Your task to perform on an android device: manage bookmarks in the chrome app Image 0: 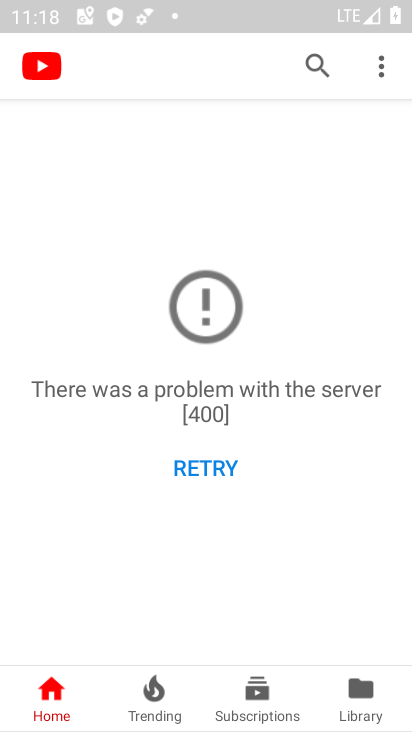
Step 0: press home button
Your task to perform on an android device: manage bookmarks in the chrome app Image 1: 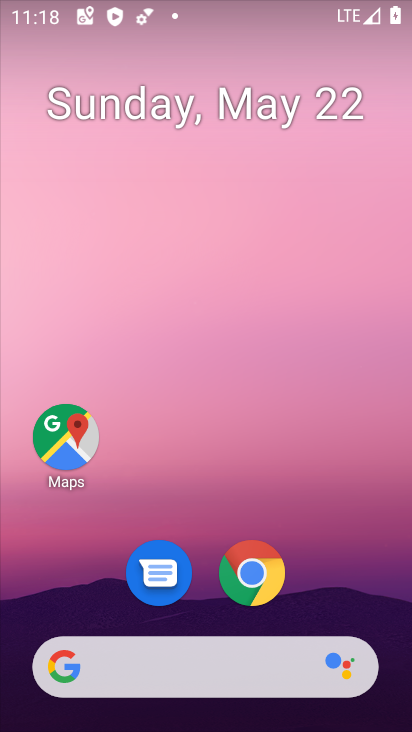
Step 1: click (243, 575)
Your task to perform on an android device: manage bookmarks in the chrome app Image 2: 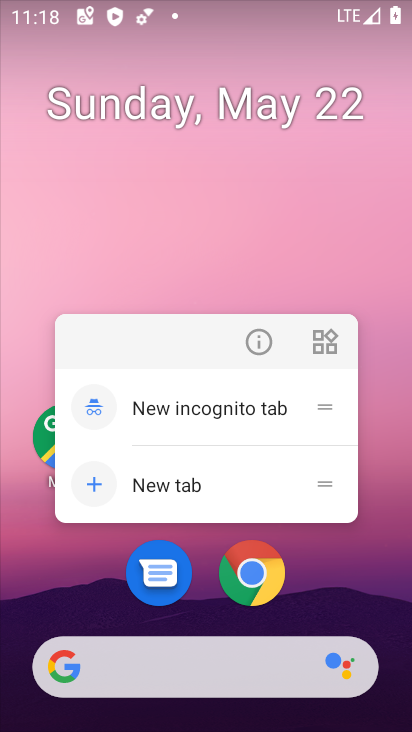
Step 2: click (240, 575)
Your task to perform on an android device: manage bookmarks in the chrome app Image 3: 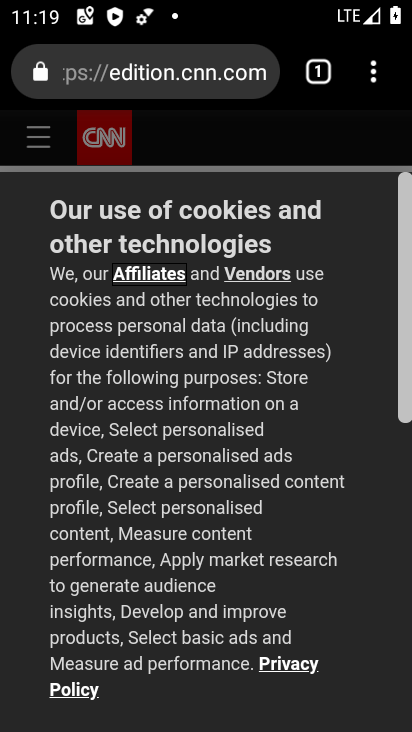
Step 3: click (381, 76)
Your task to perform on an android device: manage bookmarks in the chrome app Image 4: 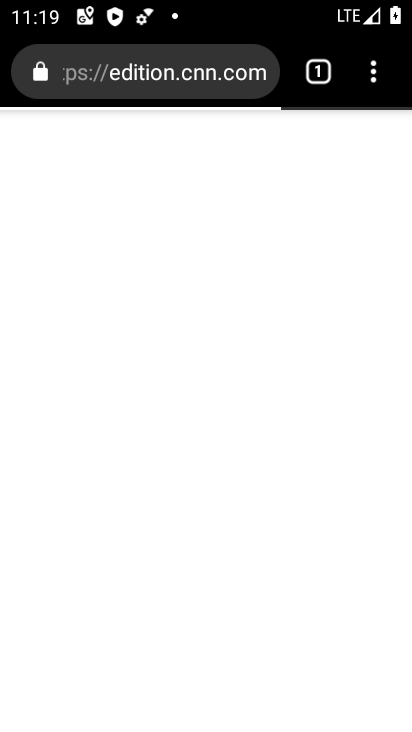
Step 4: click (381, 76)
Your task to perform on an android device: manage bookmarks in the chrome app Image 5: 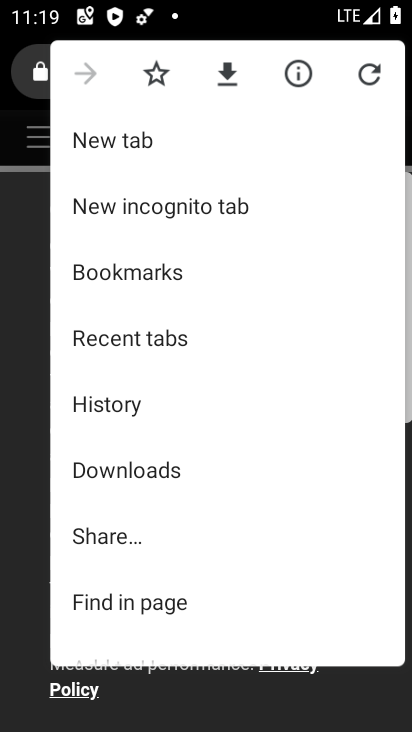
Step 5: click (143, 278)
Your task to perform on an android device: manage bookmarks in the chrome app Image 6: 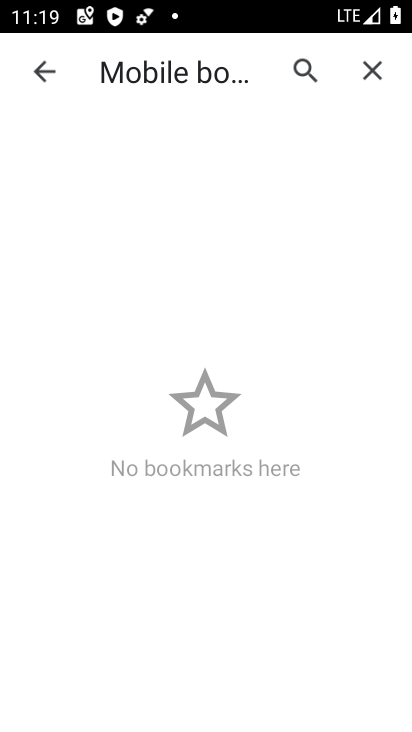
Step 6: click (368, 74)
Your task to perform on an android device: manage bookmarks in the chrome app Image 7: 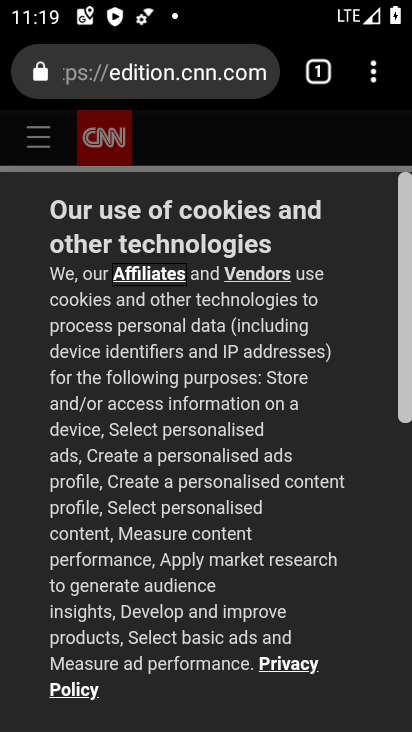
Step 7: click (388, 64)
Your task to perform on an android device: manage bookmarks in the chrome app Image 8: 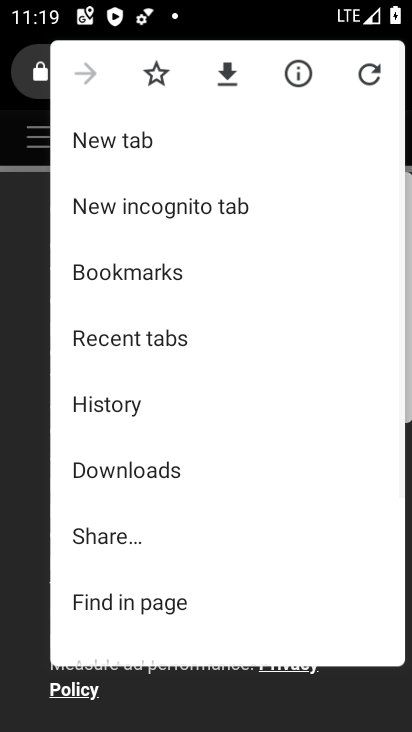
Step 8: click (150, 73)
Your task to perform on an android device: manage bookmarks in the chrome app Image 9: 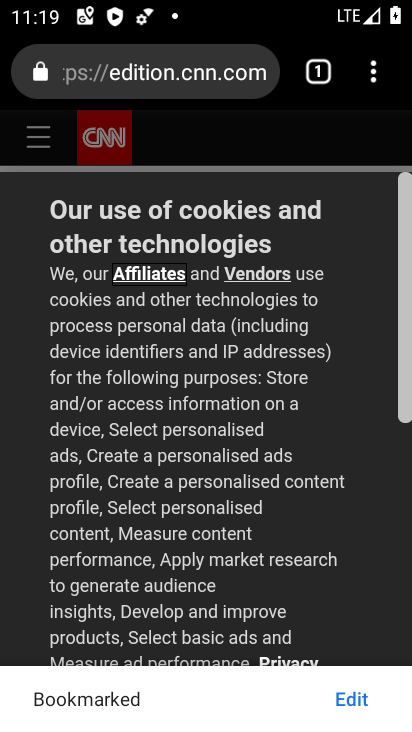
Step 9: task complete